Your task to perform on an android device: Search for vegetarian restaurants on Maps Image 0: 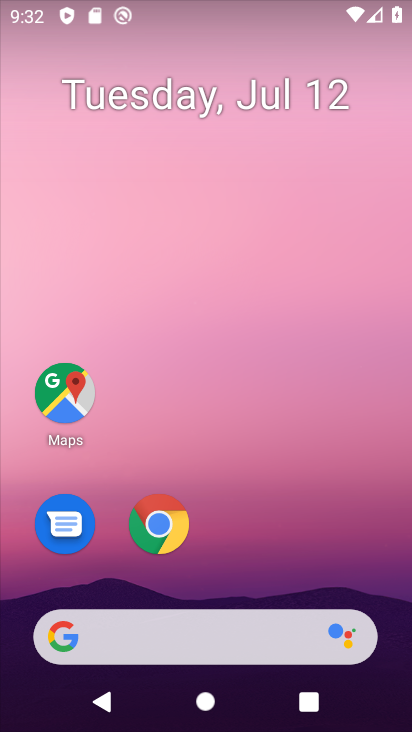
Step 0: drag from (254, 555) to (270, 38)
Your task to perform on an android device: Search for vegetarian restaurants on Maps Image 1: 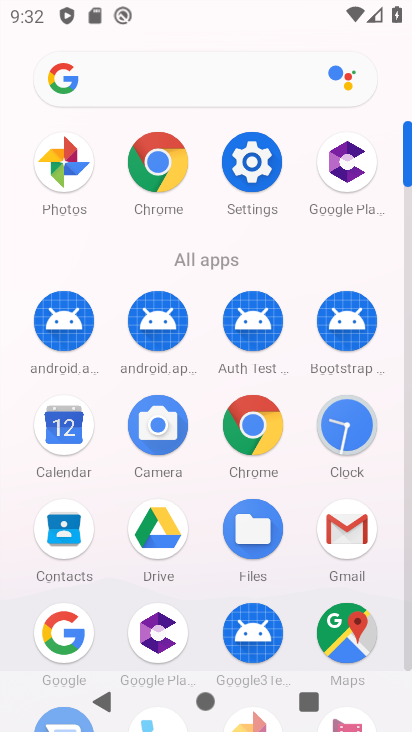
Step 1: click (332, 635)
Your task to perform on an android device: Search for vegetarian restaurants on Maps Image 2: 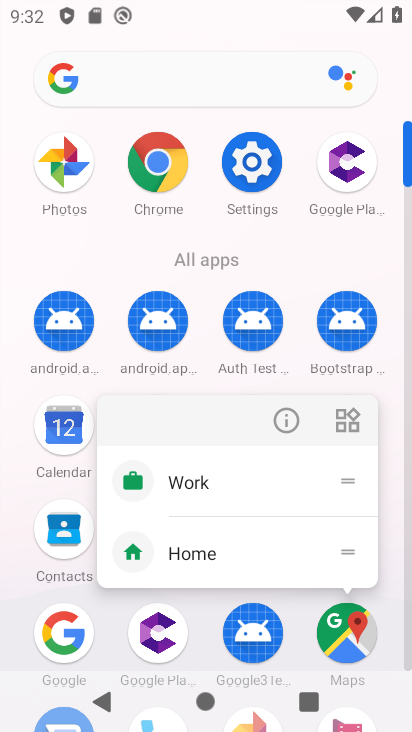
Step 2: click (338, 624)
Your task to perform on an android device: Search for vegetarian restaurants on Maps Image 3: 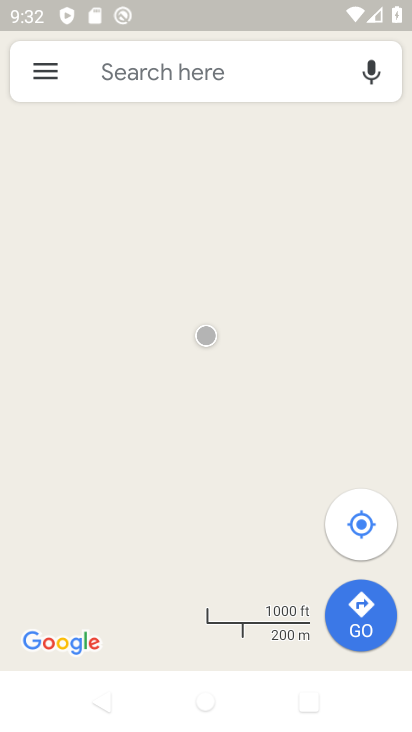
Step 3: click (244, 85)
Your task to perform on an android device: Search for vegetarian restaurants on Maps Image 4: 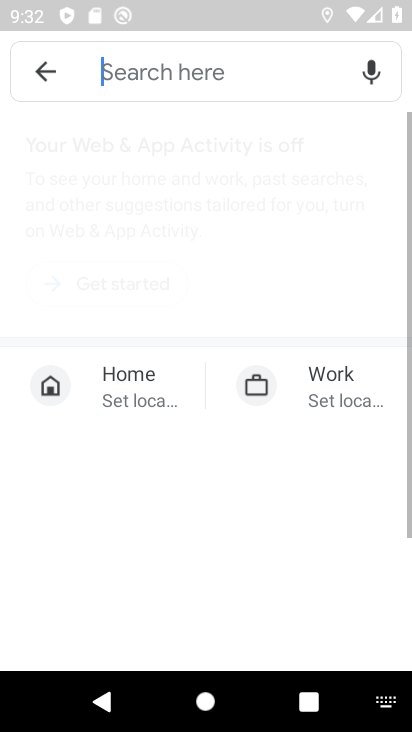
Step 4: click (244, 66)
Your task to perform on an android device: Search for vegetarian restaurants on Maps Image 5: 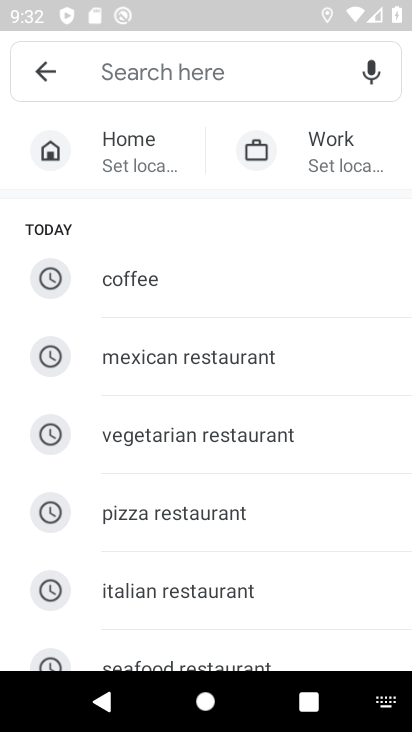
Step 5: click (240, 427)
Your task to perform on an android device: Search for vegetarian restaurants on Maps Image 6: 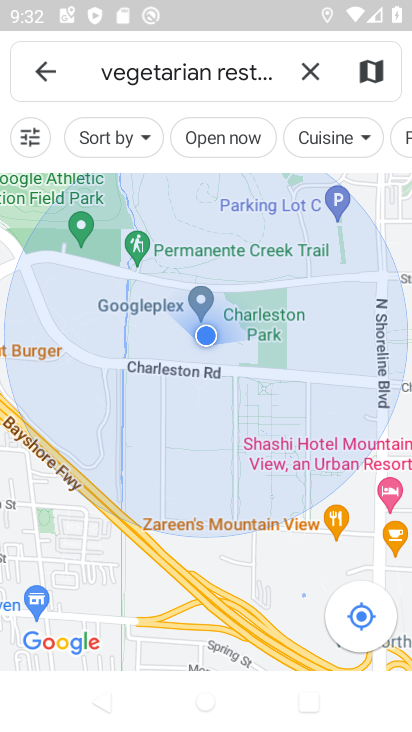
Step 6: task complete